Your task to perform on an android device: What's the weather today? Image 0: 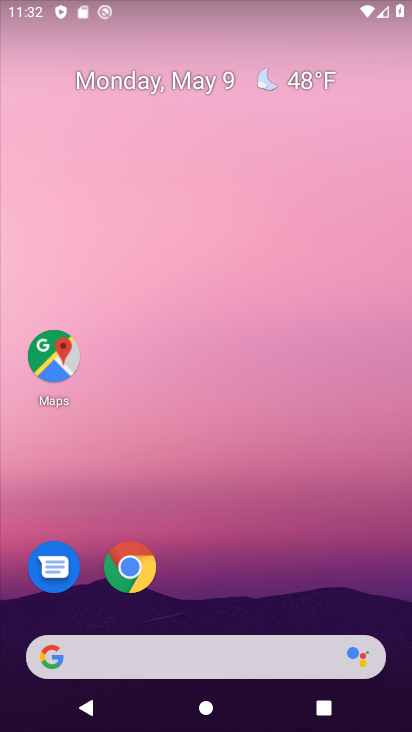
Step 0: click (302, 91)
Your task to perform on an android device: What's the weather today? Image 1: 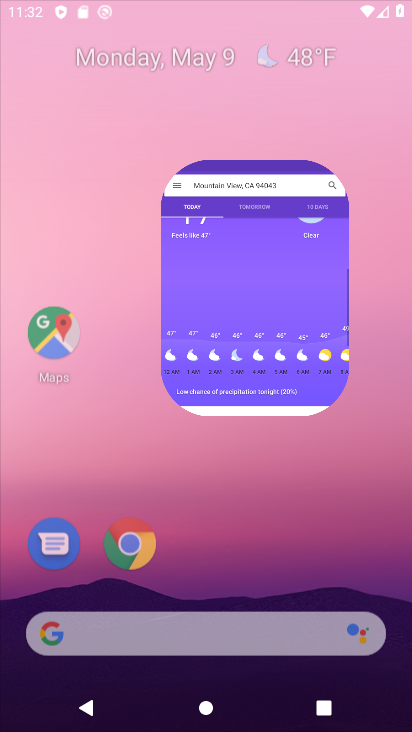
Step 1: click (302, 84)
Your task to perform on an android device: What's the weather today? Image 2: 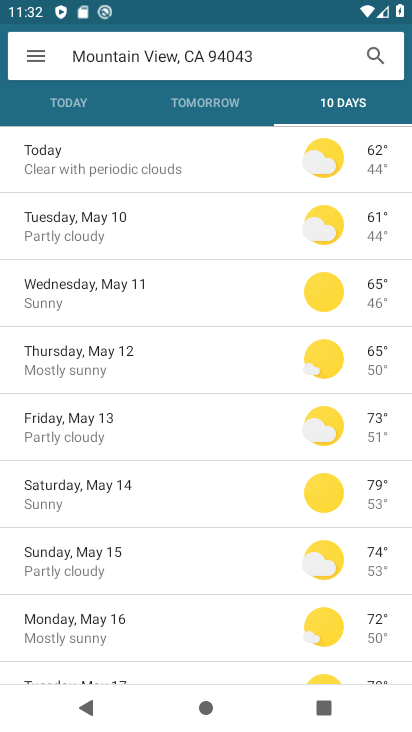
Step 2: click (44, 88)
Your task to perform on an android device: What's the weather today? Image 3: 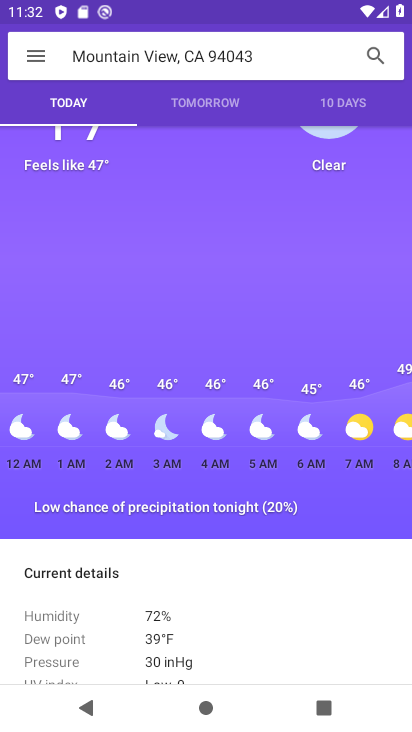
Step 3: task complete